Your task to perform on an android device: turn off airplane mode Image 0: 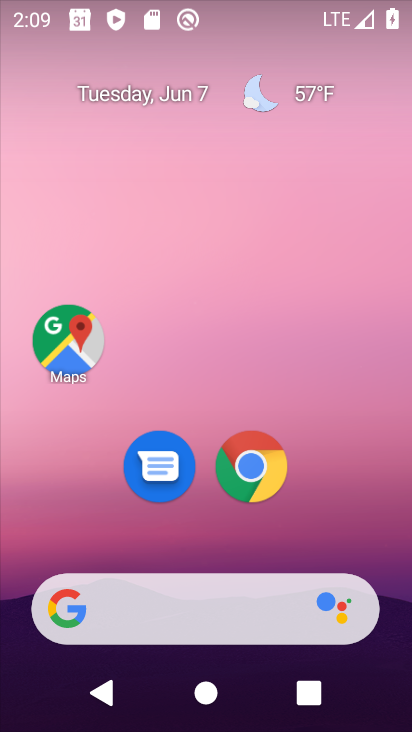
Step 0: drag from (364, 24) to (232, 551)
Your task to perform on an android device: turn off airplane mode Image 1: 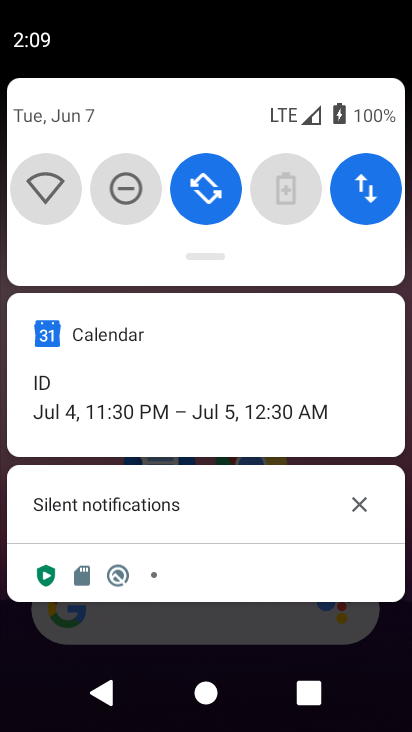
Step 1: click (173, 602)
Your task to perform on an android device: turn off airplane mode Image 2: 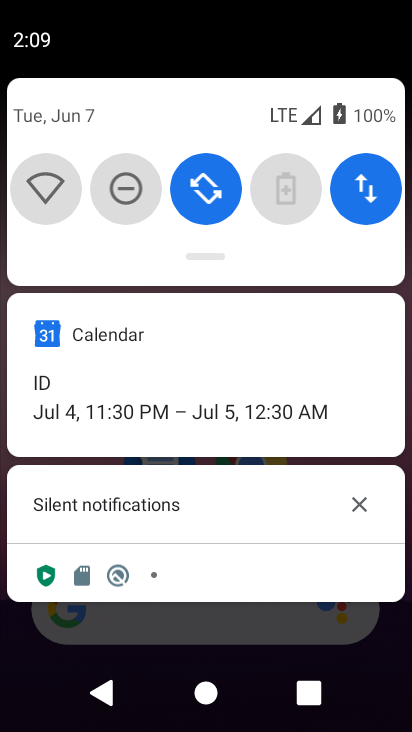
Step 2: task complete